Your task to perform on an android device: What's on my calendar today? Image 0: 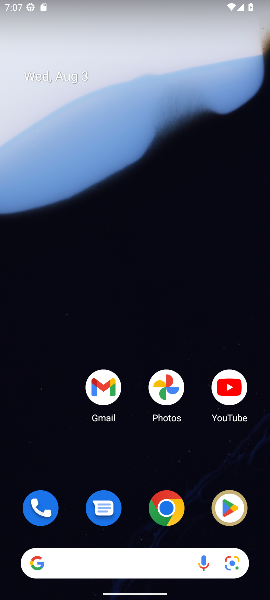
Step 0: drag from (205, 458) to (178, 88)
Your task to perform on an android device: What's on my calendar today? Image 1: 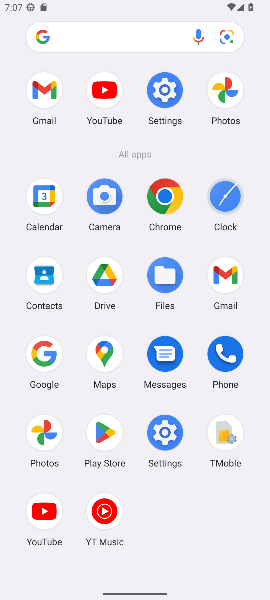
Step 1: task complete